Your task to perform on an android device: Toggle the flashlight Image 0: 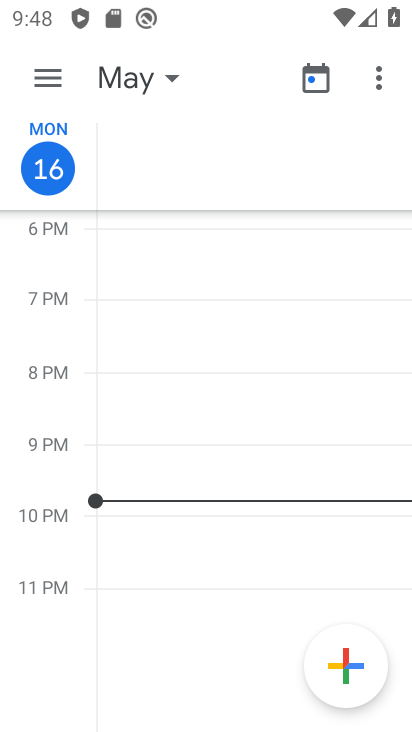
Step 0: press home button
Your task to perform on an android device: Toggle the flashlight Image 1: 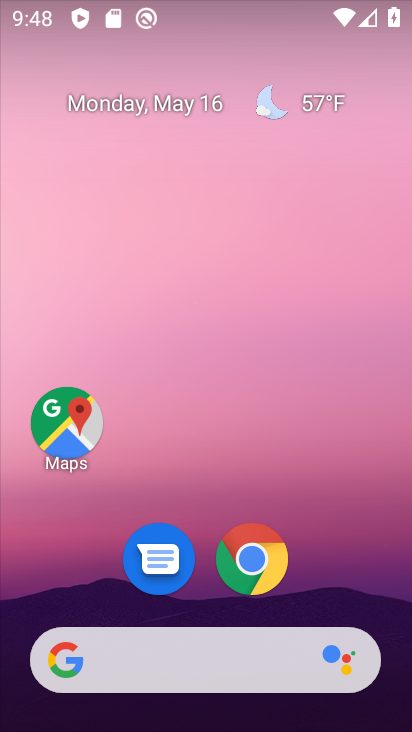
Step 1: task complete